Your task to perform on an android device: When is my next appointment? Image 0: 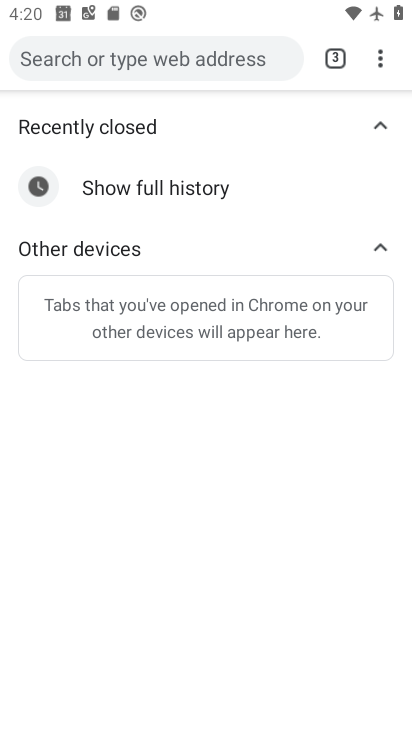
Step 0: press home button
Your task to perform on an android device: When is my next appointment? Image 1: 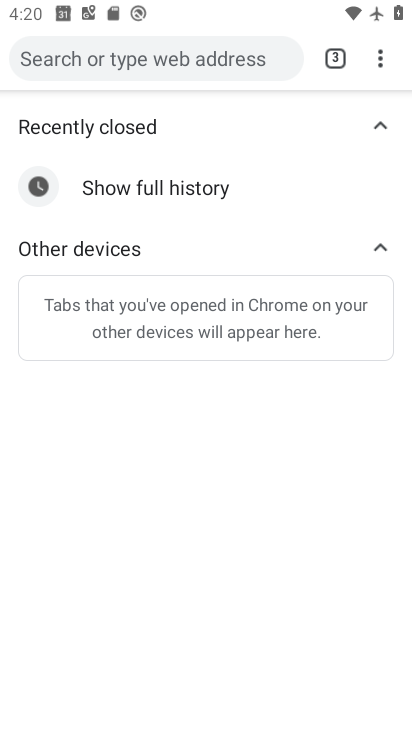
Step 1: click (175, 591)
Your task to perform on an android device: When is my next appointment? Image 2: 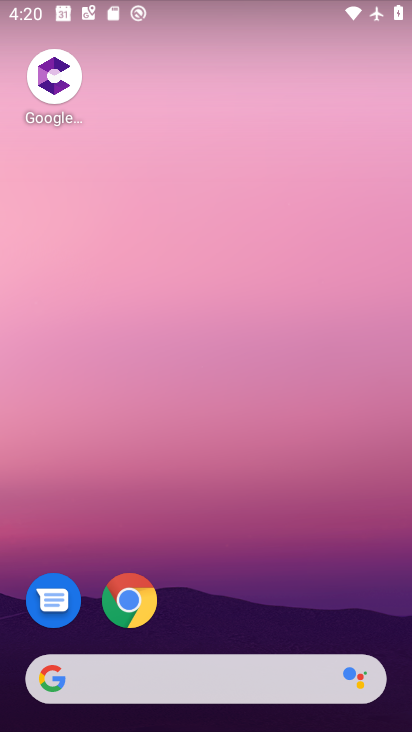
Step 2: drag from (396, 506) to (241, 63)
Your task to perform on an android device: When is my next appointment? Image 3: 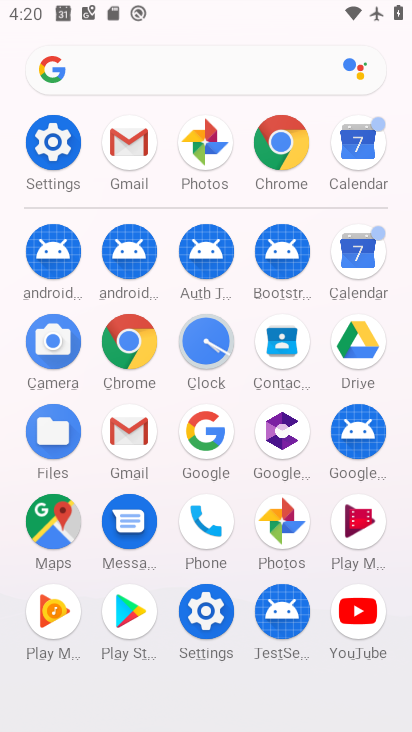
Step 3: click (377, 258)
Your task to perform on an android device: When is my next appointment? Image 4: 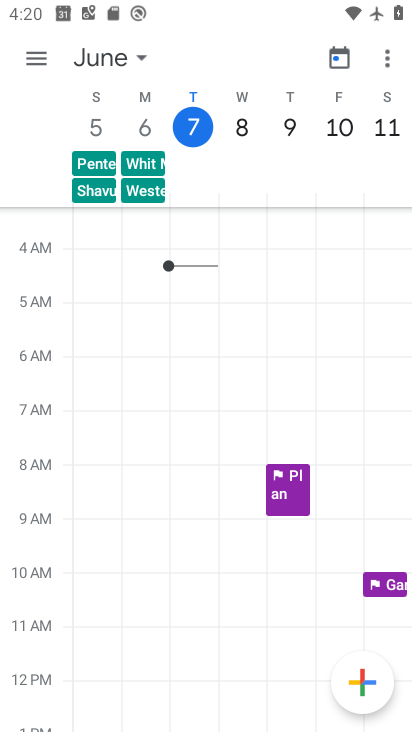
Step 4: task complete